Your task to perform on an android device: turn on priority inbox in the gmail app Image 0: 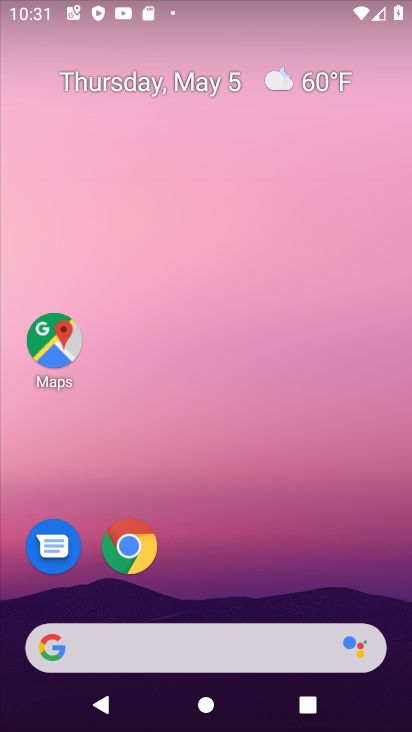
Step 0: drag from (204, 587) to (292, 46)
Your task to perform on an android device: turn on priority inbox in the gmail app Image 1: 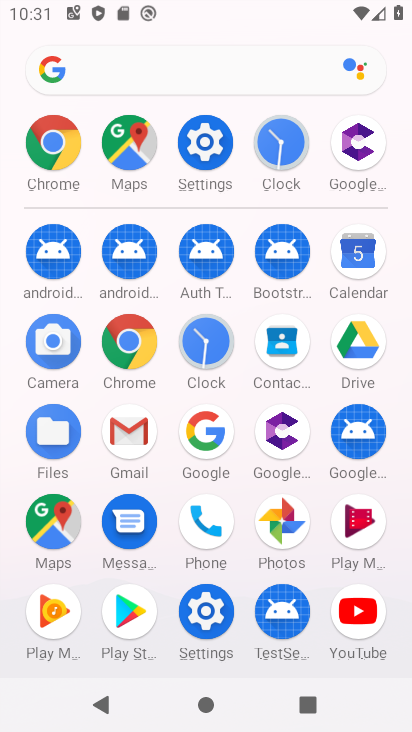
Step 1: click (124, 446)
Your task to perform on an android device: turn on priority inbox in the gmail app Image 2: 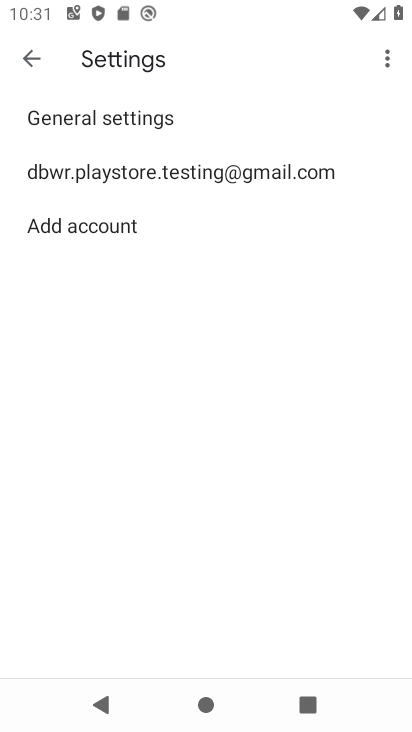
Step 2: click (89, 168)
Your task to perform on an android device: turn on priority inbox in the gmail app Image 3: 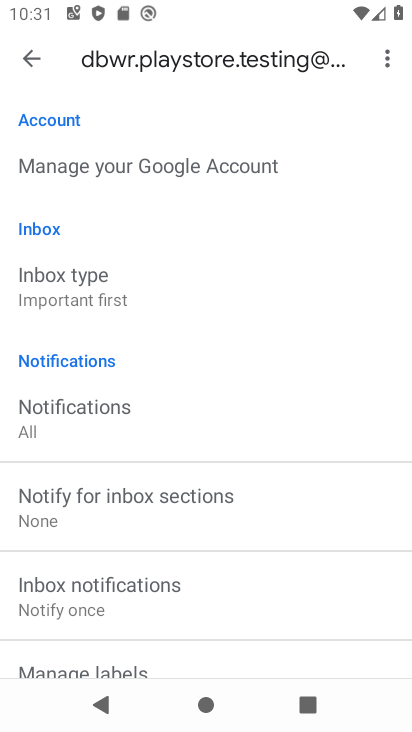
Step 3: click (103, 293)
Your task to perform on an android device: turn on priority inbox in the gmail app Image 4: 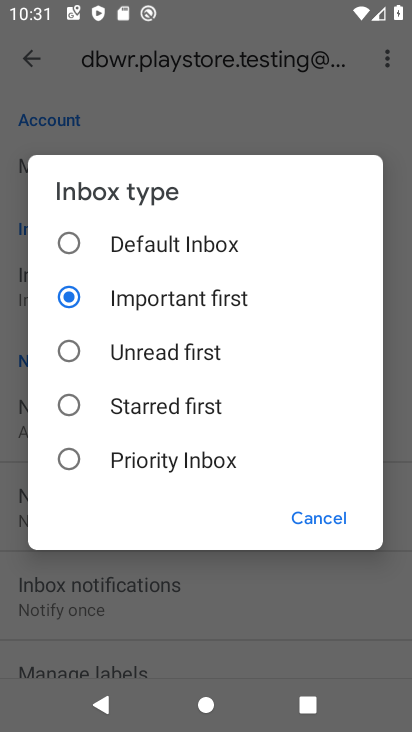
Step 4: click (138, 471)
Your task to perform on an android device: turn on priority inbox in the gmail app Image 5: 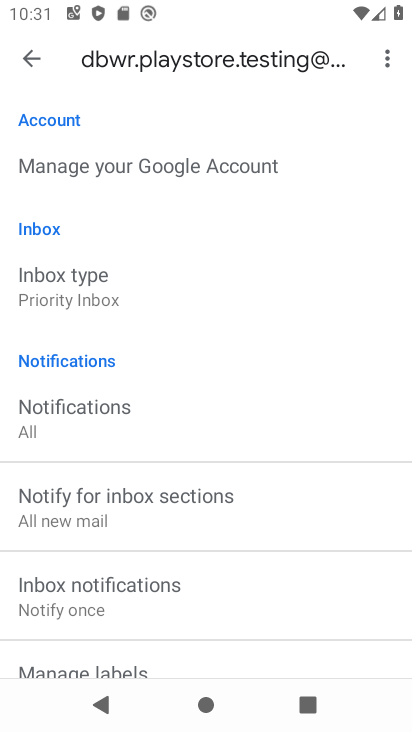
Step 5: task complete